Your task to perform on an android device: turn on improve location accuracy Image 0: 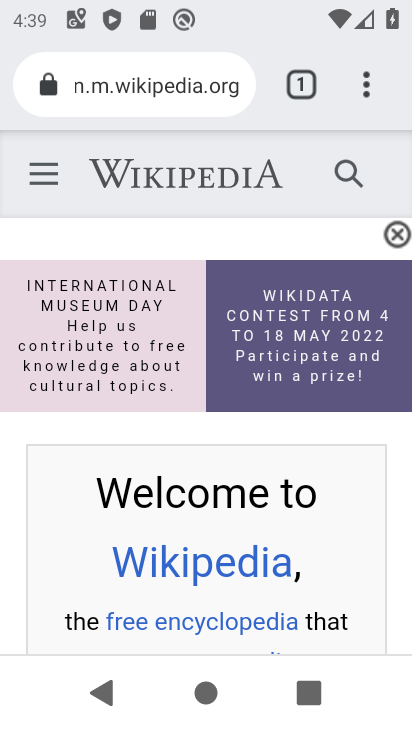
Step 0: drag from (398, 626) to (347, 222)
Your task to perform on an android device: turn on improve location accuracy Image 1: 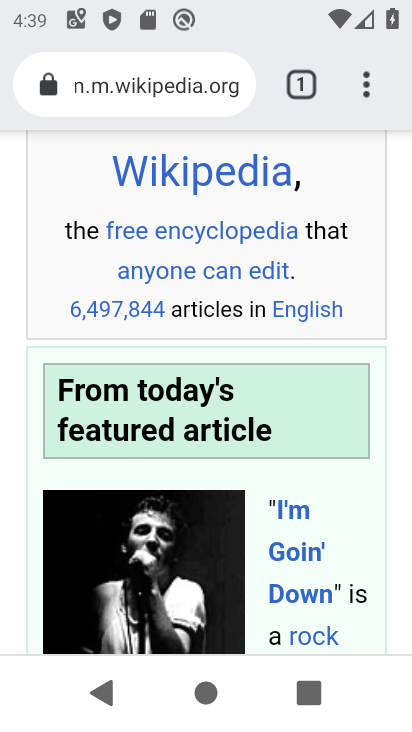
Step 1: press home button
Your task to perform on an android device: turn on improve location accuracy Image 2: 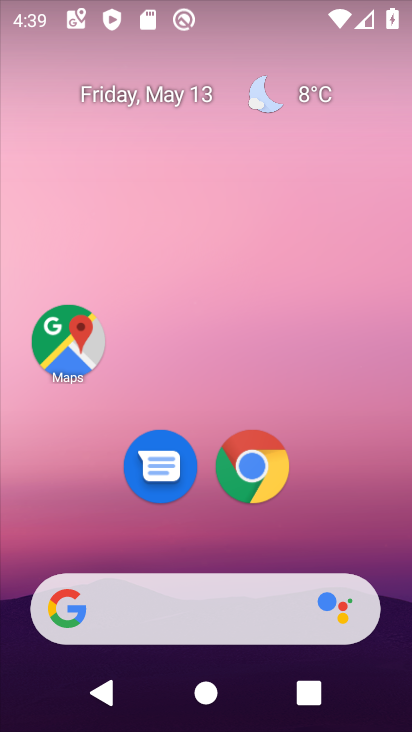
Step 2: drag from (391, 618) to (312, 124)
Your task to perform on an android device: turn on improve location accuracy Image 3: 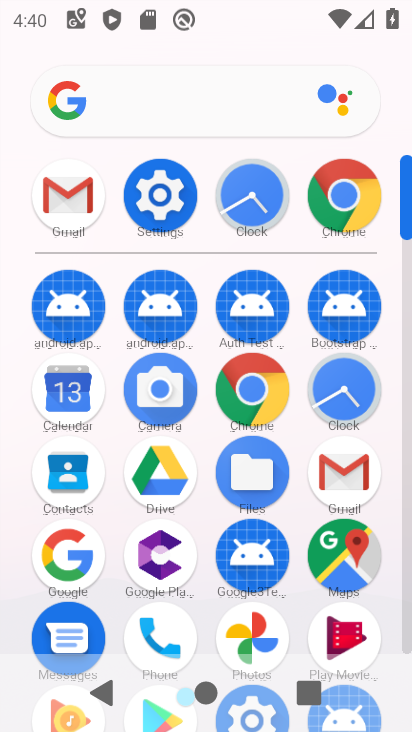
Step 3: click (405, 636)
Your task to perform on an android device: turn on improve location accuracy Image 4: 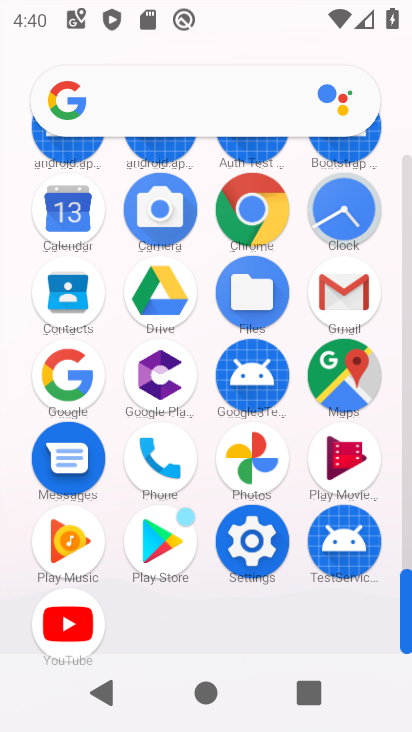
Step 4: click (255, 542)
Your task to perform on an android device: turn on improve location accuracy Image 5: 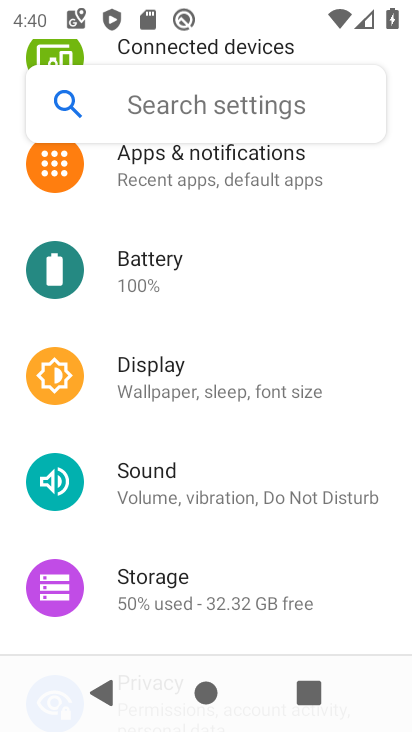
Step 5: drag from (244, 588) to (263, 174)
Your task to perform on an android device: turn on improve location accuracy Image 6: 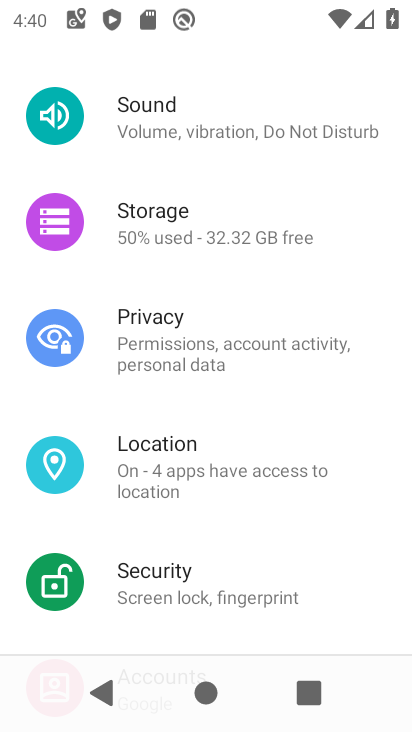
Step 6: click (162, 462)
Your task to perform on an android device: turn on improve location accuracy Image 7: 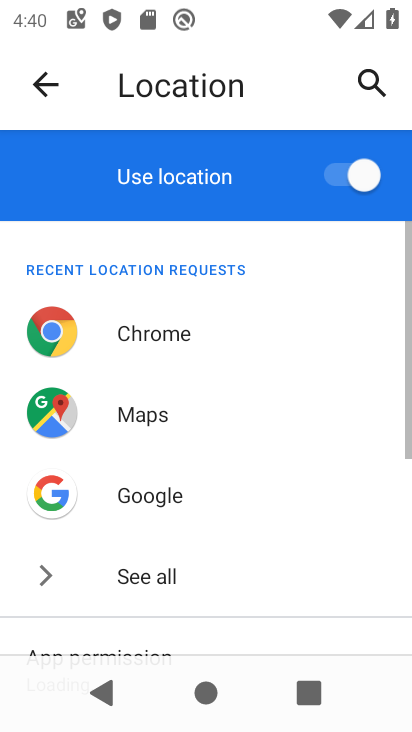
Step 7: drag from (144, 572) to (194, 85)
Your task to perform on an android device: turn on improve location accuracy Image 8: 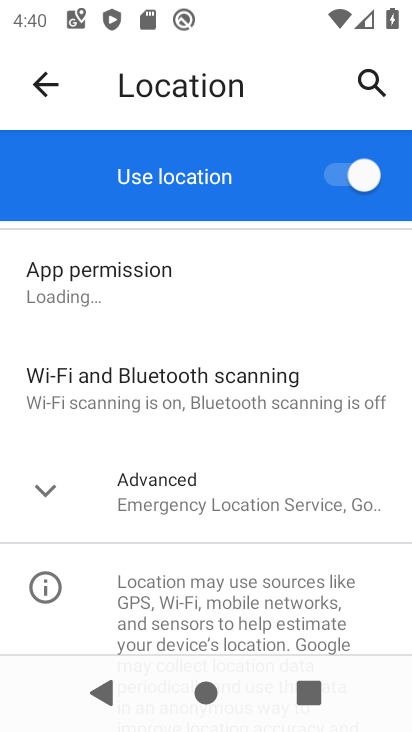
Step 8: click (43, 498)
Your task to perform on an android device: turn on improve location accuracy Image 9: 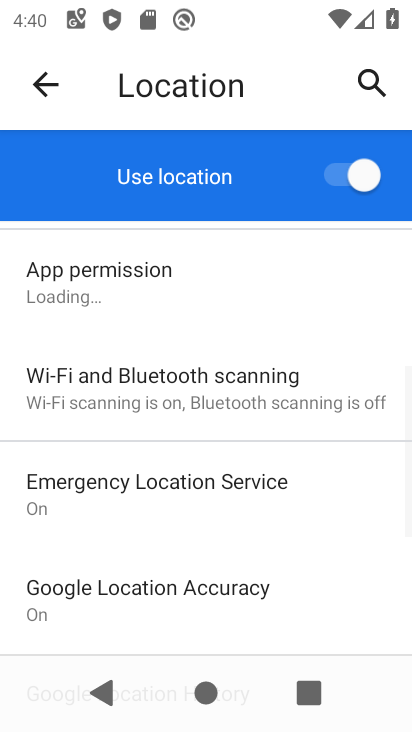
Step 9: click (89, 593)
Your task to perform on an android device: turn on improve location accuracy Image 10: 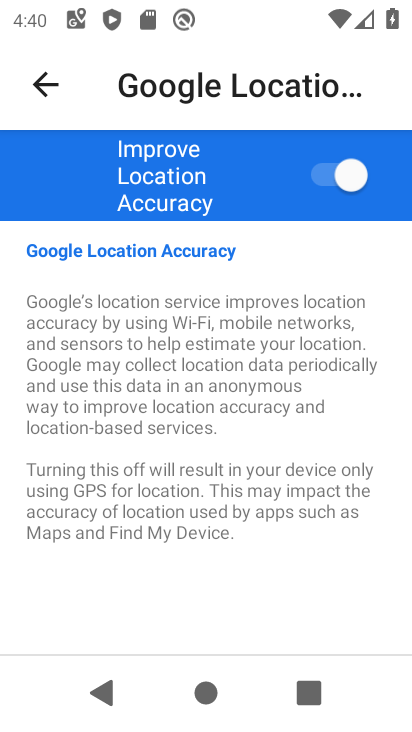
Step 10: task complete